Your task to perform on an android device: uninstall "Facebook" Image 0: 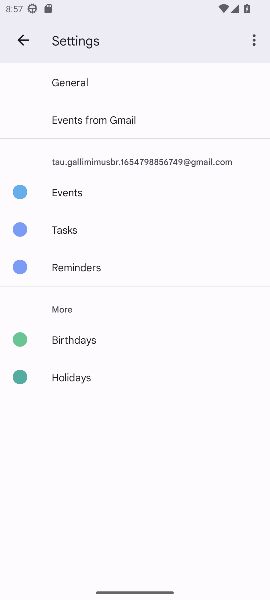
Step 0: press home button
Your task to perform on an android device: uninstall "Facebook" Image 1: 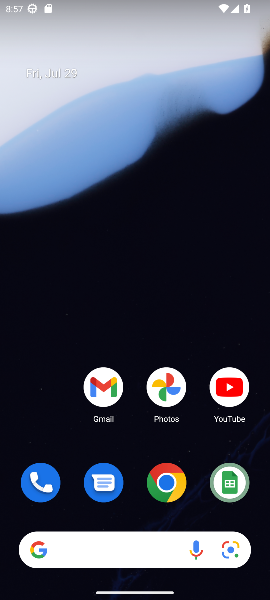
Step 1: drag from (142, 486) to (130, 126)
Your task to perform on an android device: uninstall "Facebook" Image 2: 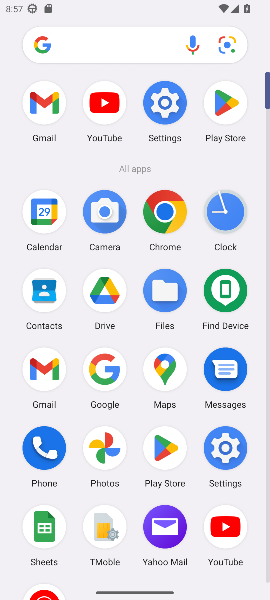
Step 2: click (214, 113)
Your task to perform on an android device: uninstall "Facebook" Image 3: 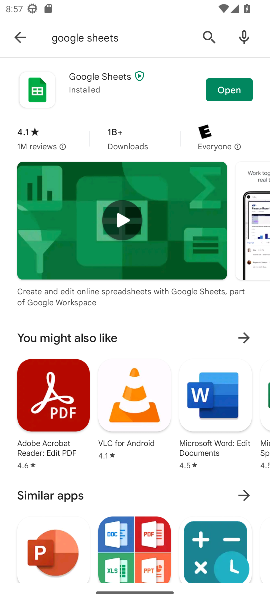
Step 3: click (206, 32)
Your task to perform on an android device: uninstall "Facebook" Image 4: 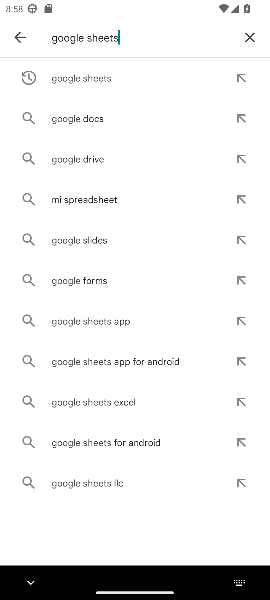
Step 4: click (252, 38)
Your task to perform on an android device: uninstall "Facebook" Image 5: 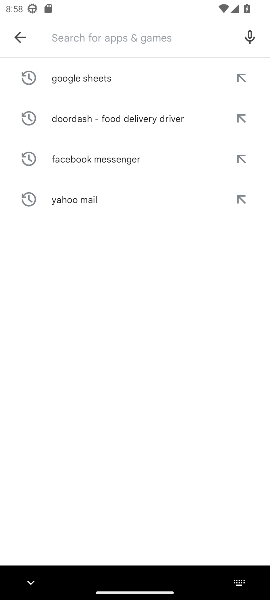
Step 5: type "Facebook"
Your task to perform on an android device: uninstall "Facebook" Image 6: 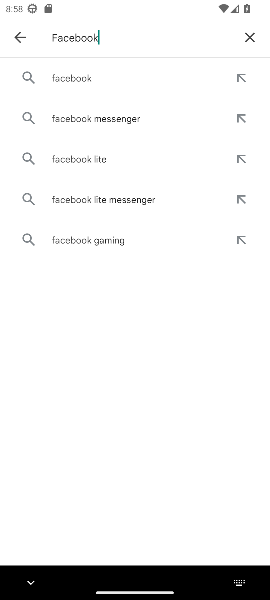
Step 6: click (65, 82)
Your task to perform on an android device: uninstall "Facebook" Image 7: 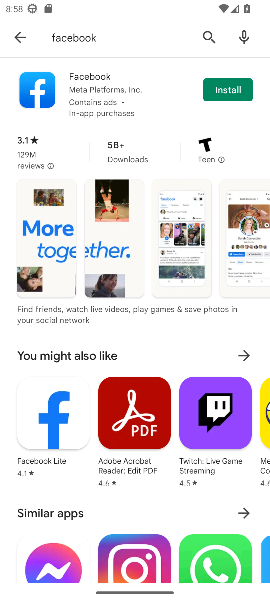
Step 7: task complete